Your task to perform on an android device: toggle notification dots Image 0: 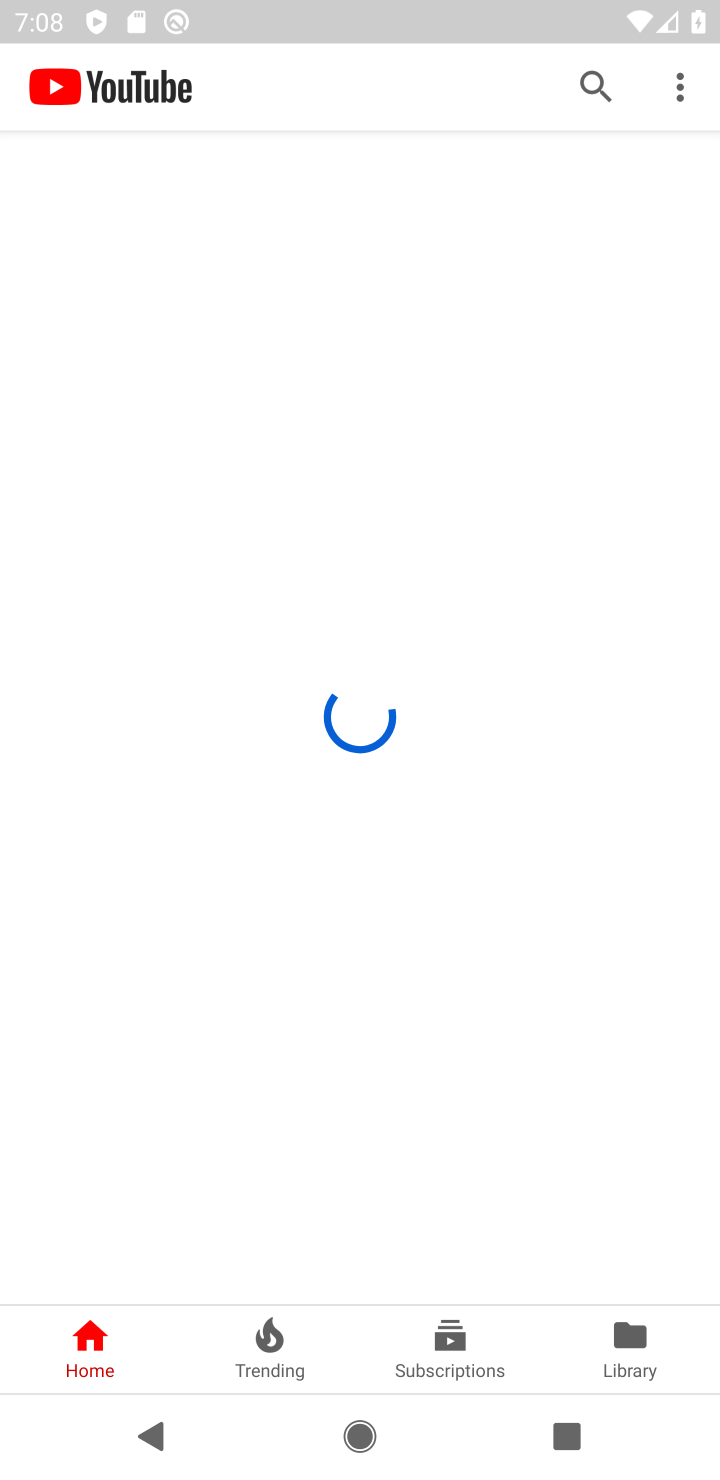
Step 0: press home button
Your task to perform on an android device: toggle notification dots Image 1: 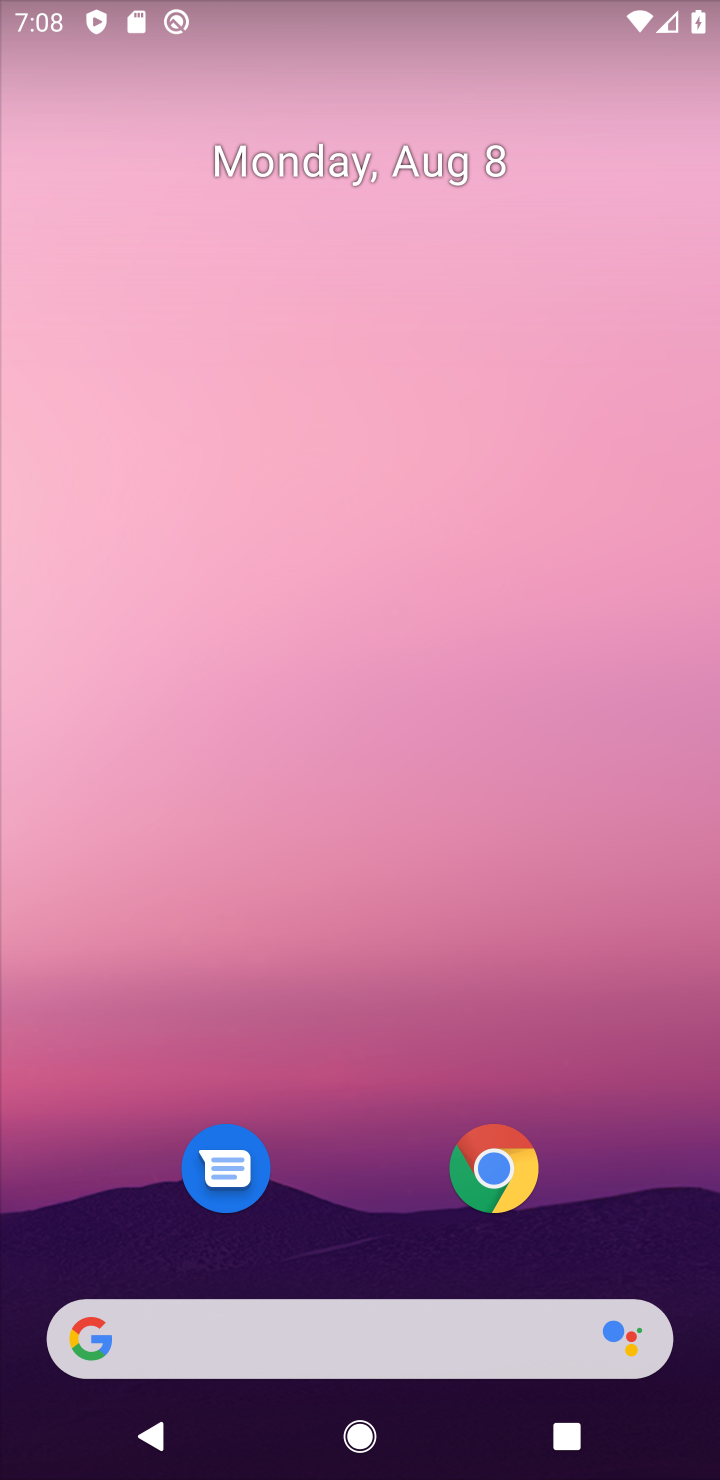
Step 1: drag from (670, 803) to (618, 52)
Your task to perform on an android device: toggle notification dots Image 2: 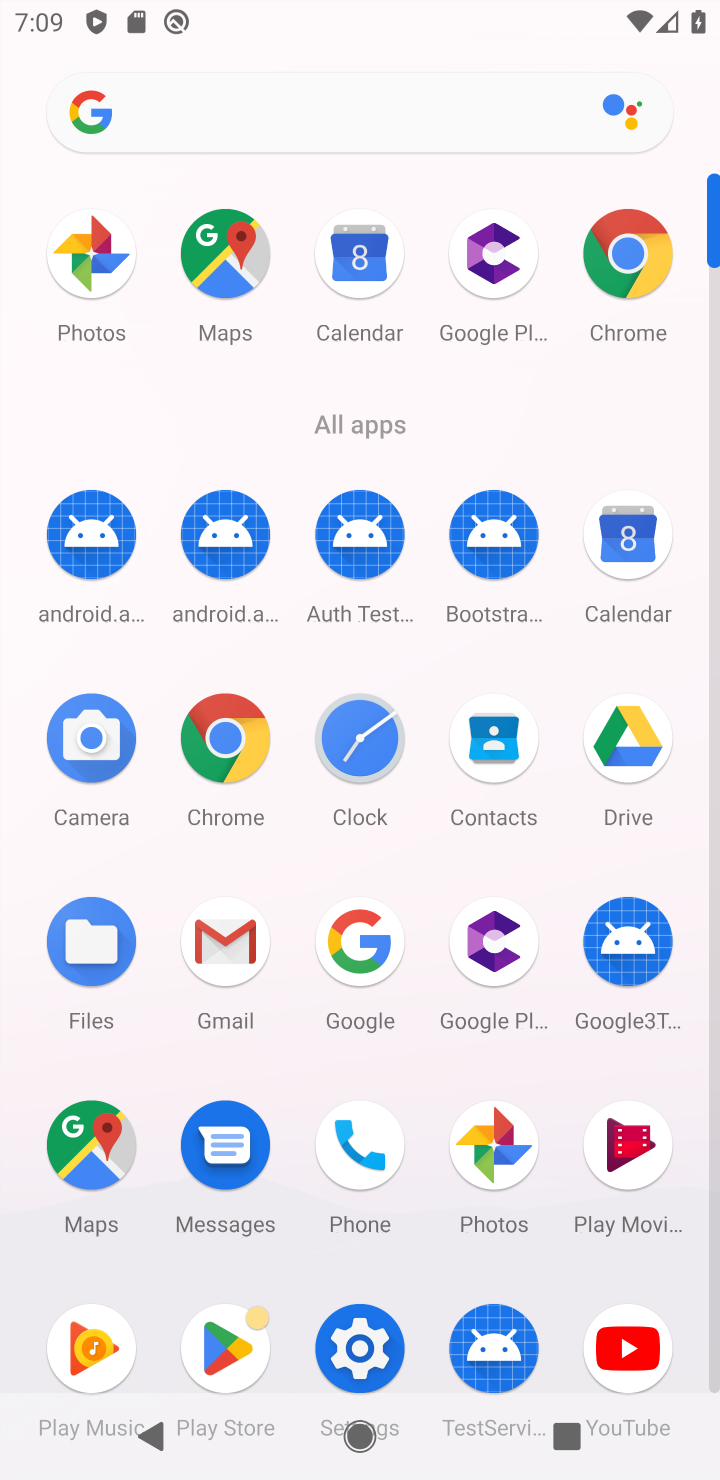
Step 2: click (402, 1361)
Your task to perform on an android device: toggle notification dots Image 3: 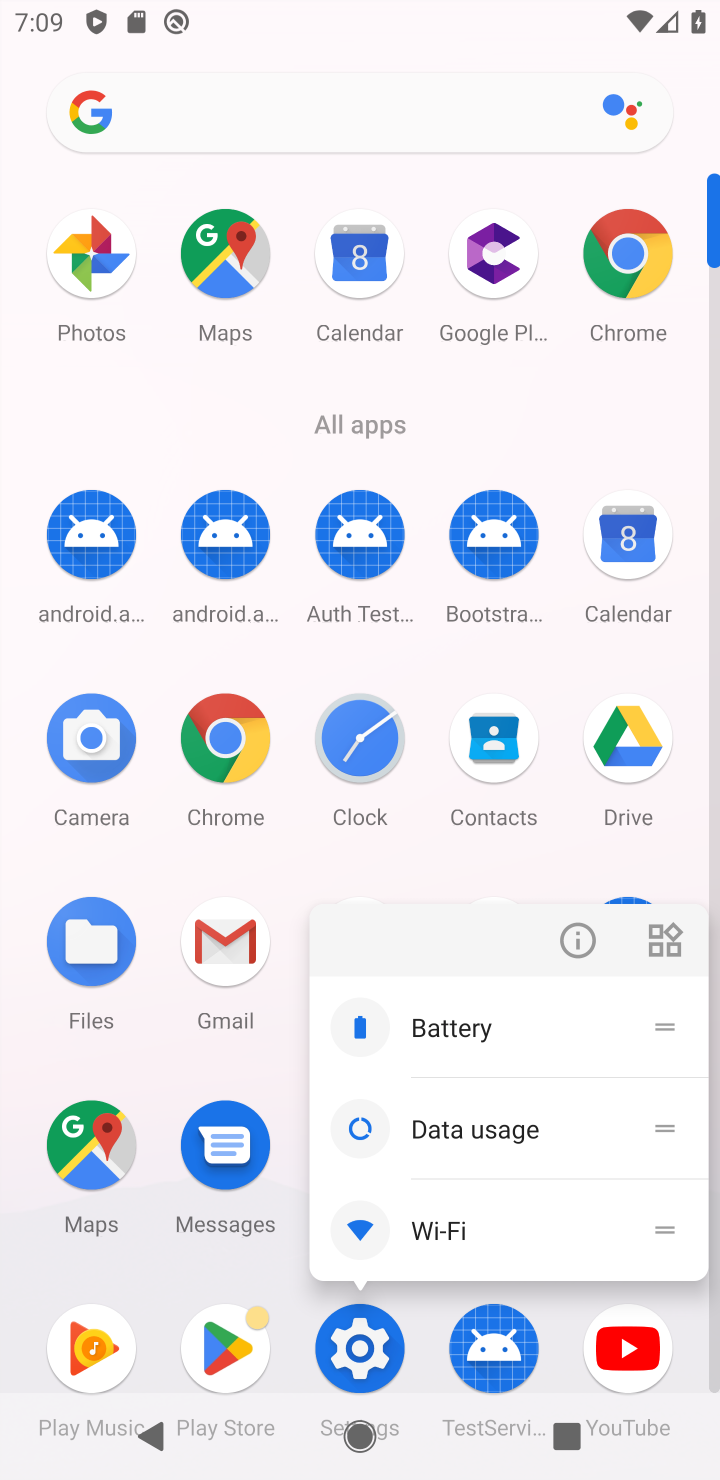
Step 3: click (369, 1336)
Your task to perform on an android device: toggle notification dots Image 4: 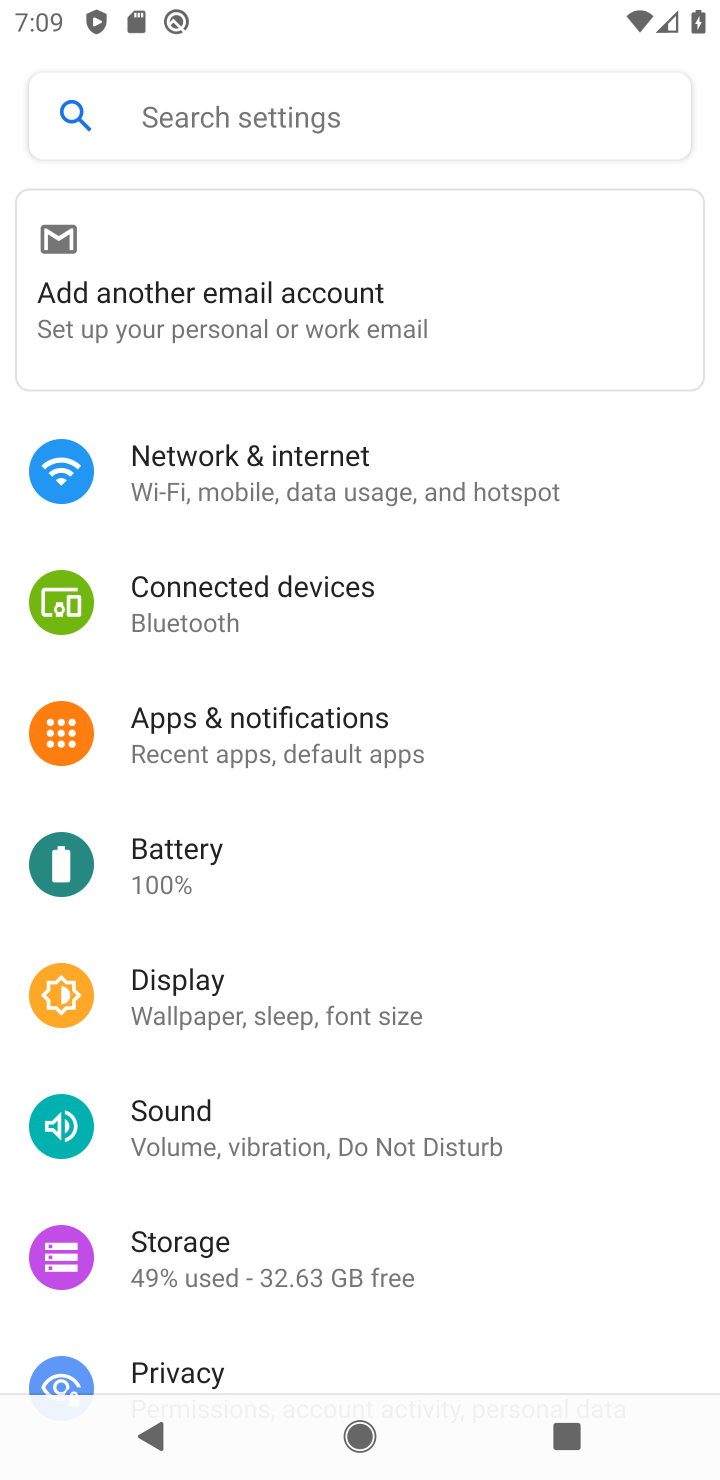
Step 4: click (275, 748)
Your task to perform on an android device: toggle notification dots Image 5: 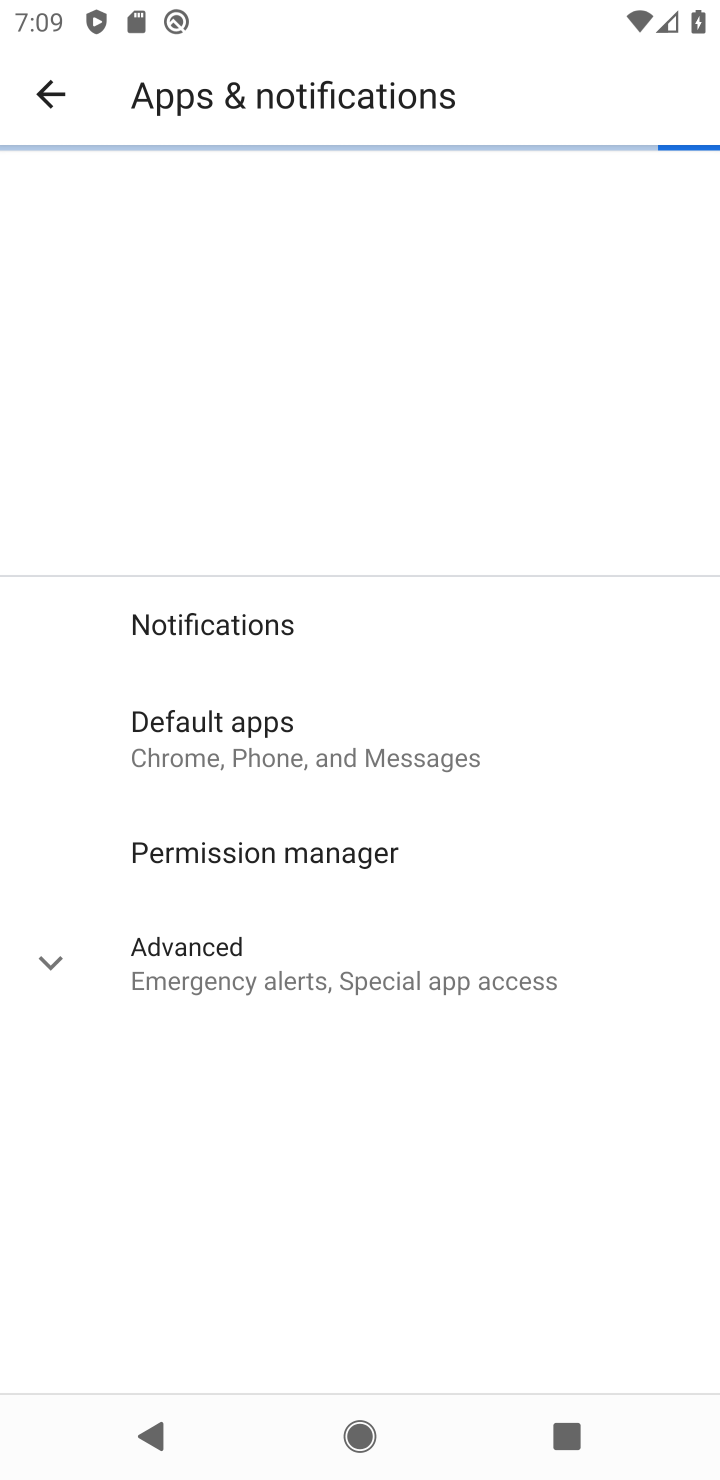
Step 5: click (186, 628)
Your task to perform on an android device: toggle notification dots Image 6: 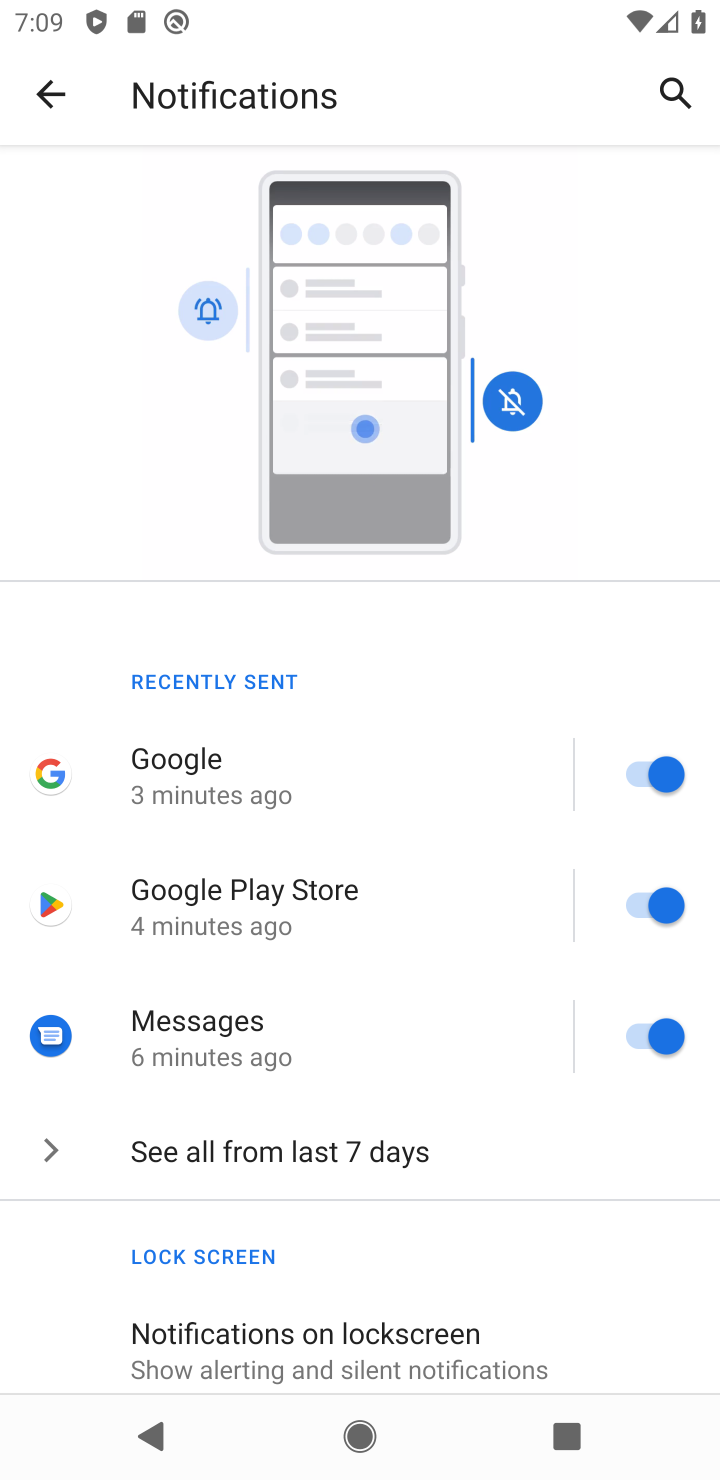
Step 6: drag from (281, 1187) to (260, 248)
Your task to perform on an android device: toggle notification dots Image 7: 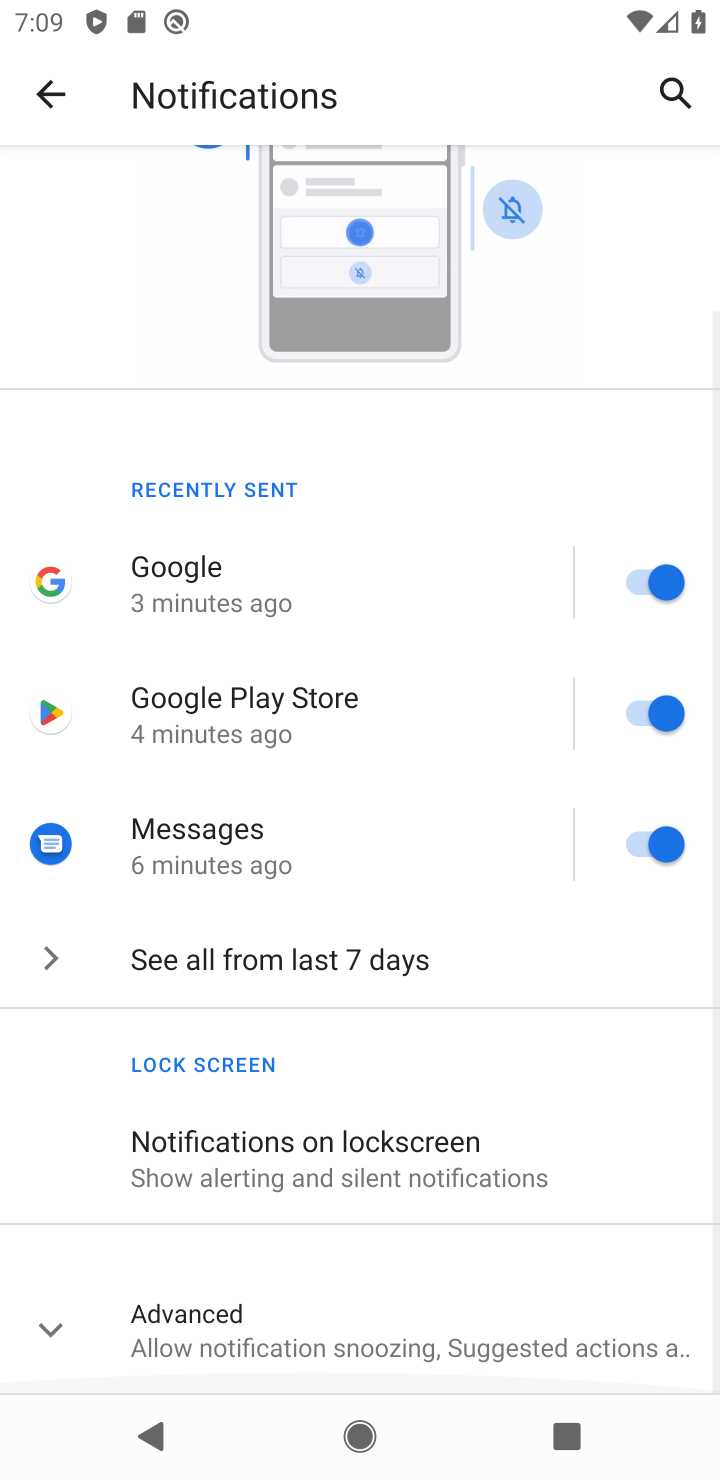
Step 7: click (71, 1329)
Your task to perform on an android device: toggle notification dots Image 8: 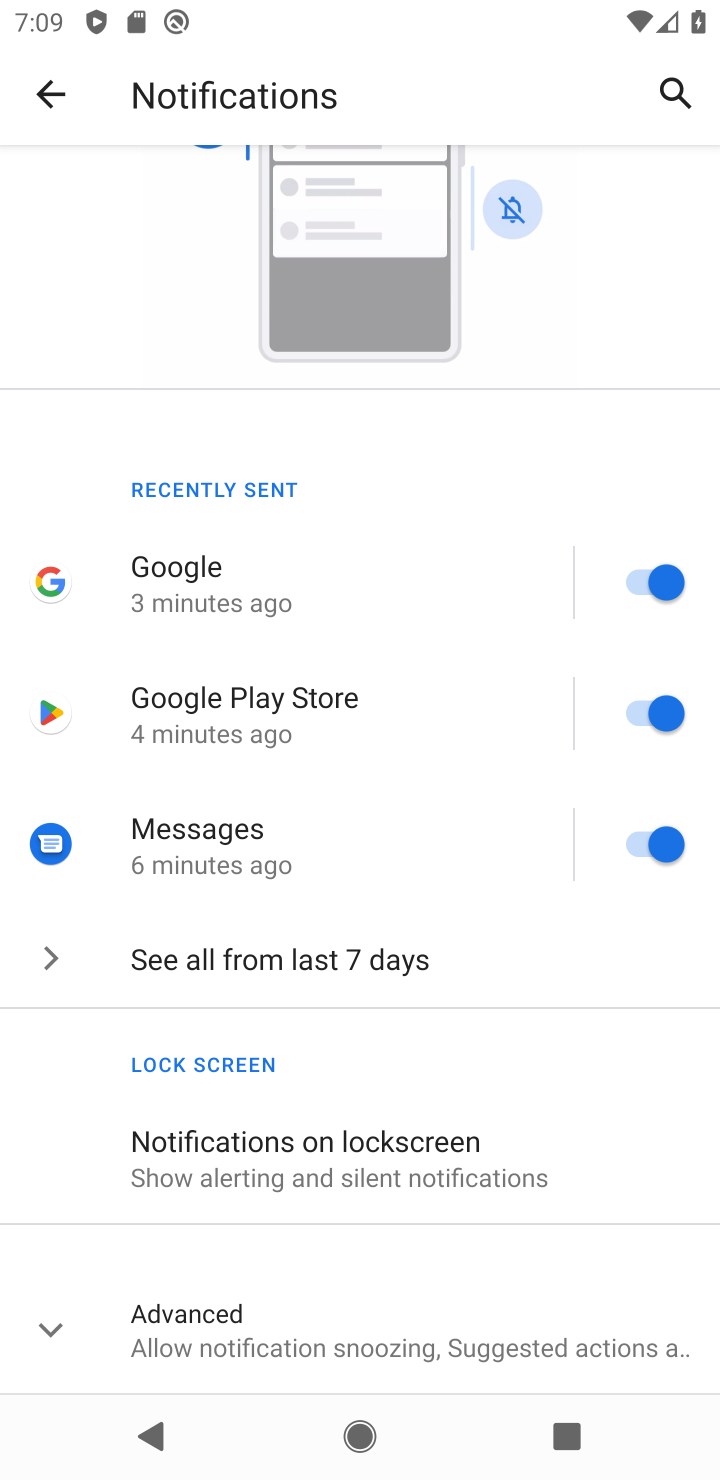
Step 8: drag from (269, 1340) to (431, 202)
Your task to perform on an android device: toggle notification dots Image 9: 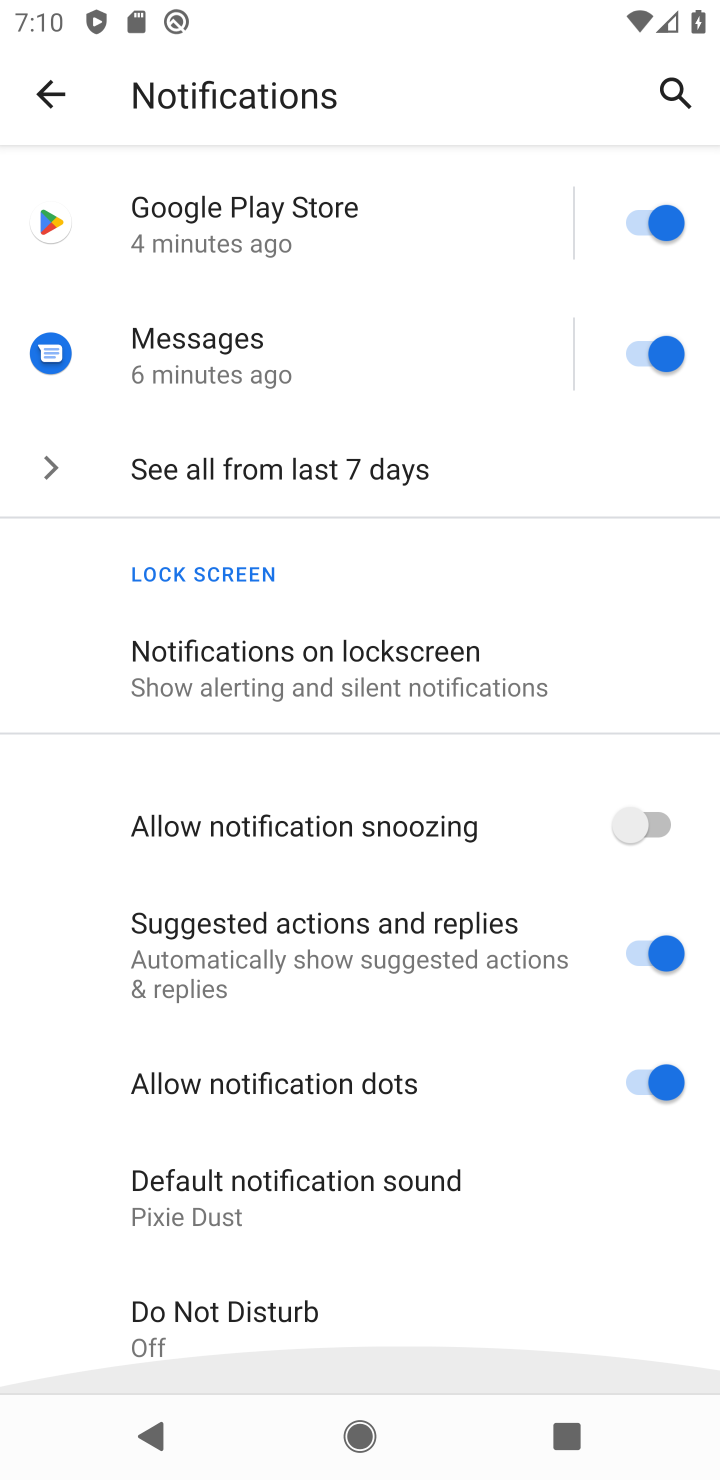
Step 9: drag from (460, 1256) to (314, 296)
Your task to perform on an android device: toggle notification dots Image 10: 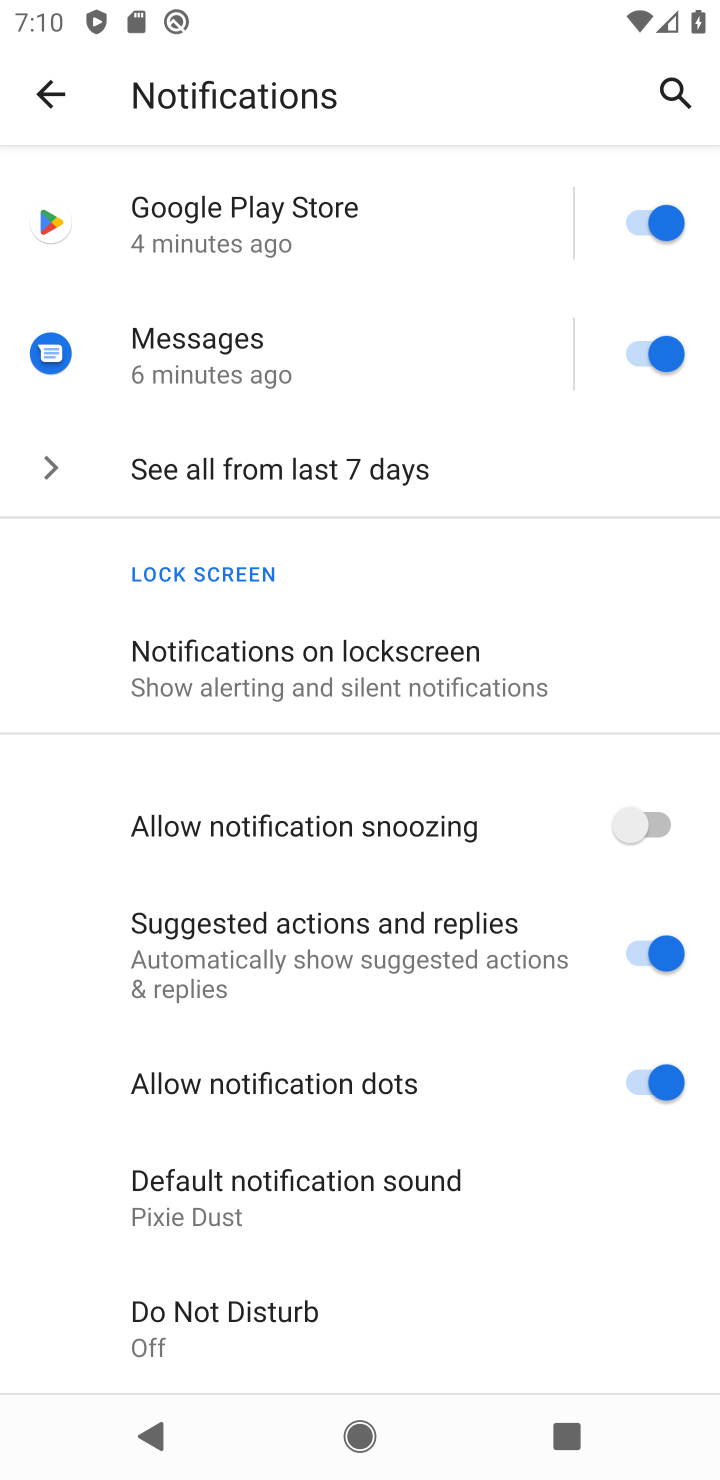
Step 10: click (538, 1092)
Your task to perform on an android device: toggle notification dots Image 11: 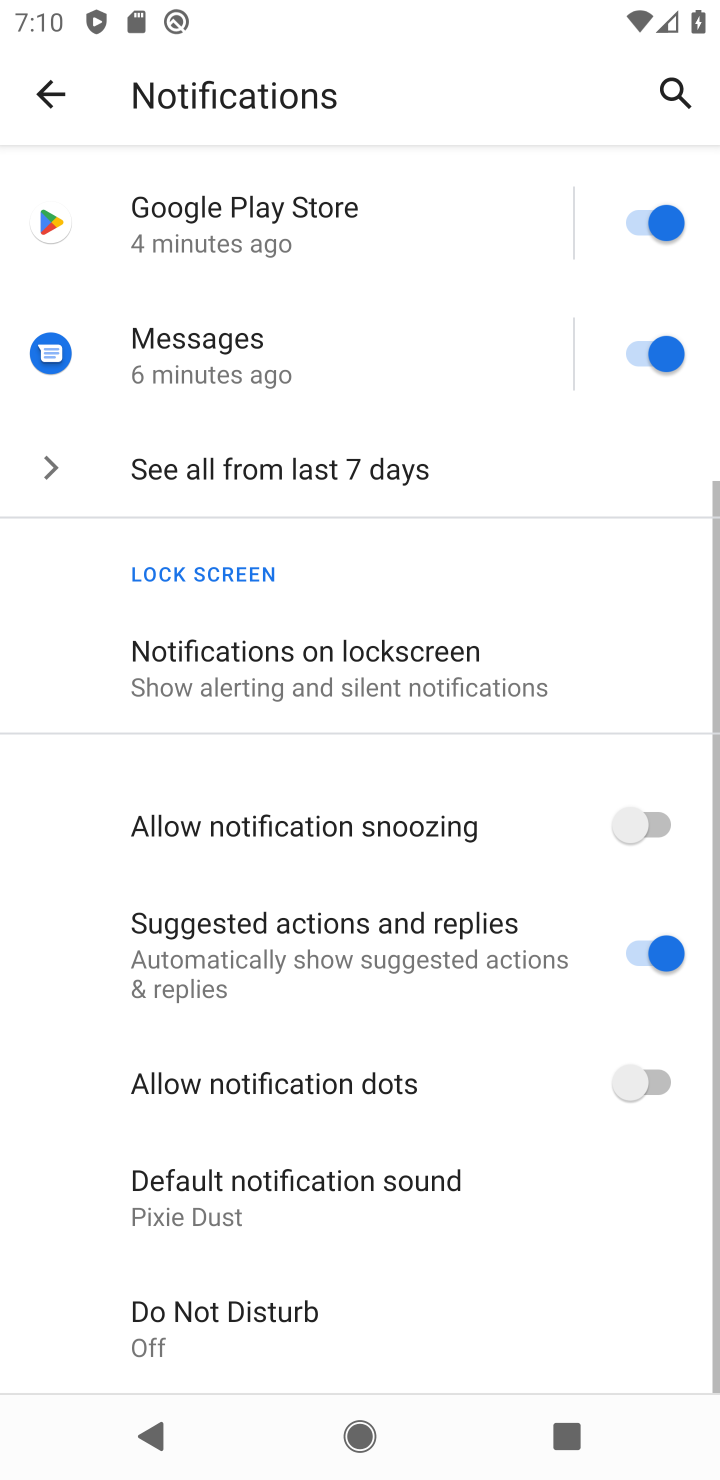
Step 11: task complete